Your task to perform on an android device: turn off data saver in the chrome app Image 0: 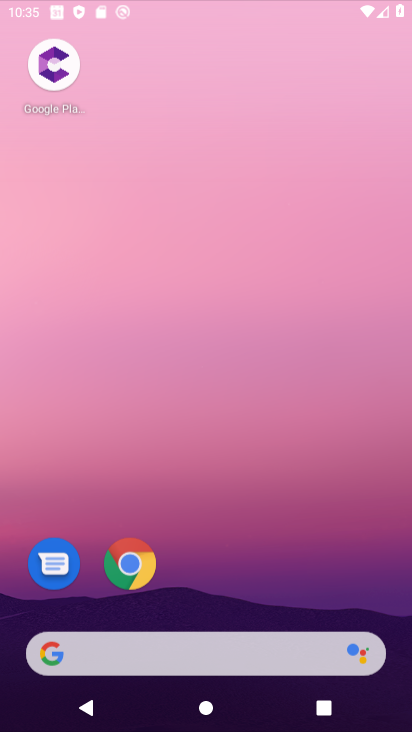
Step 0: click (308, 46)
Your task to perform on an android device: turn off data saver in the chrome app Image 1: 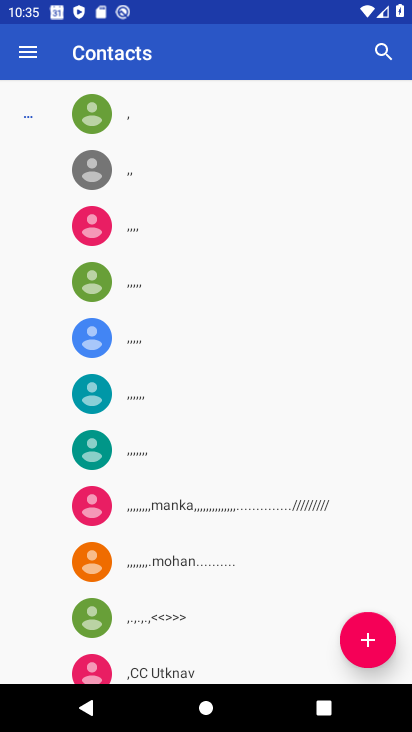
Step 1: press home button
Your task to perform on an android device: turn off data saver in the chrome app Image 2: 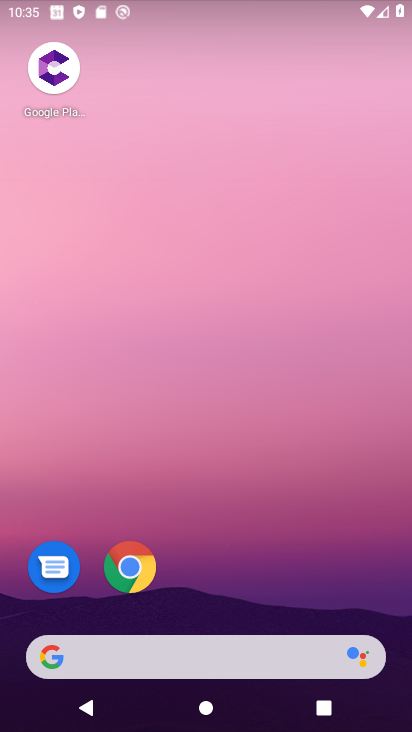
Step 2: drag from (347, 614) to (315, 128)
Your task to perform on an android device: turn off data saver in the chrome app Image 3: 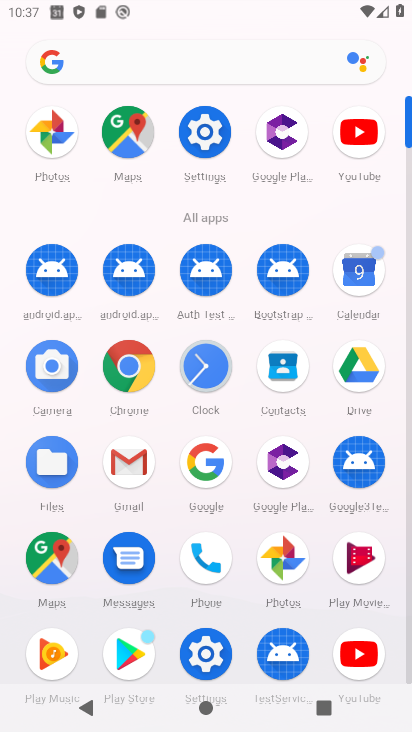
Step 3: click (119, 358)
Your task to perform on an android device: turn off data saver in the chrome app Image 4: 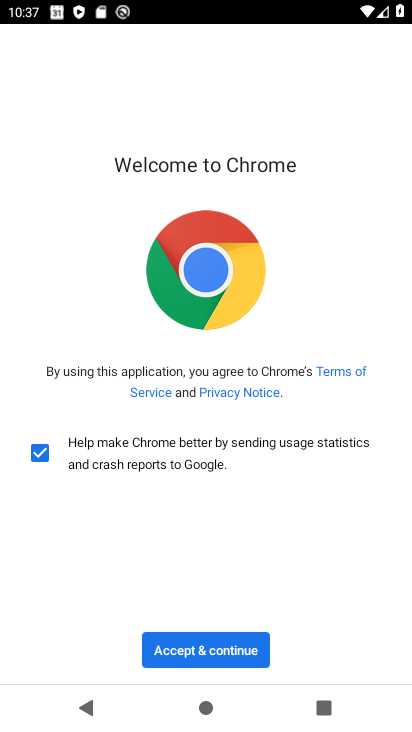
Step 4: click (219, 654)
Your task to perform on an android device: turn off data saver in the chrome app Image 5: 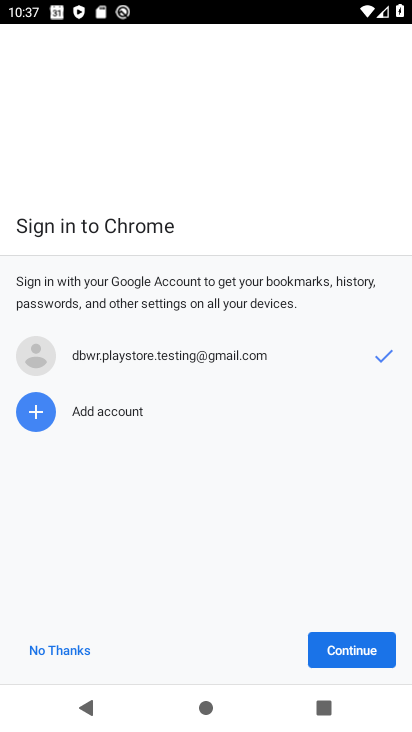
Step 5: click (362, 642)
Your task to perform on an android device: turn off data saver in the chrome app Image 6: 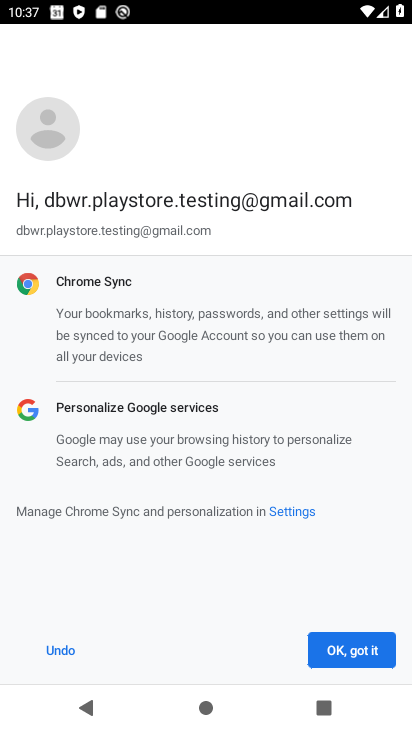
Step 6: click (362, 642)
Your task to perform on an android device: turn off data saver in the chrome app Image 7: 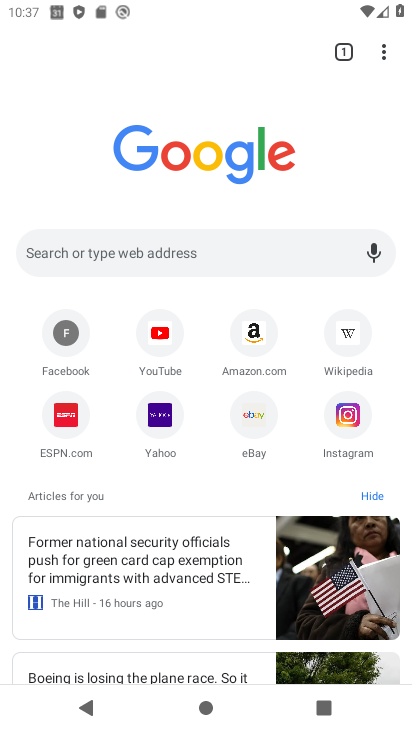
Step 7: click (384, 51)
Your task to perform on an android device: turn off data saver in the chrome app Image 8: 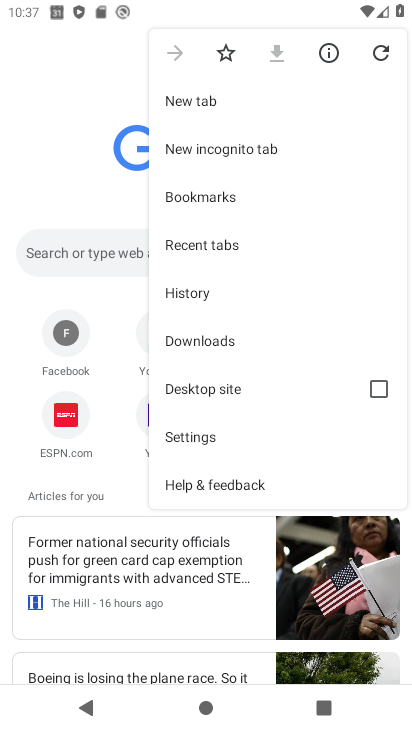
Step 8: click (197, 442)
Your task to perform on an android device: turn off data saver in the chrome app Image 9: 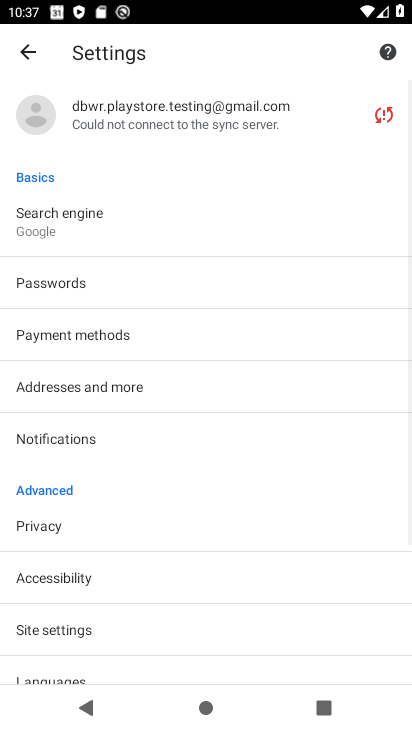
Step 9: drag from (126, 657) to (152, 363)
Your task to perform on an android device: turn off data saver in the chrome app Image 10: 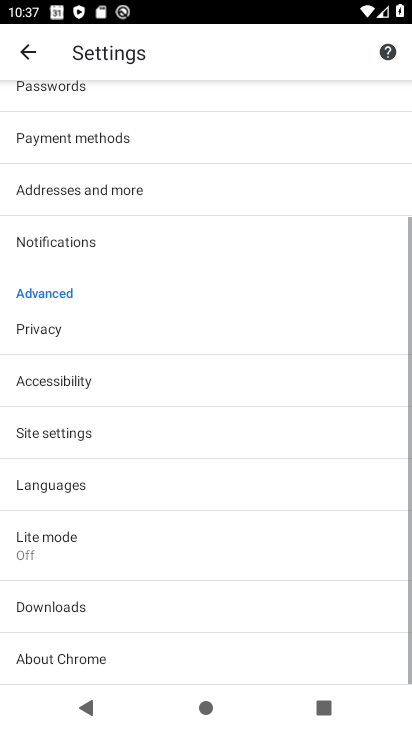
Step 10: click (89, 536)
Your task to perform on an android device: turn off data saver in the chrome app Image 11: 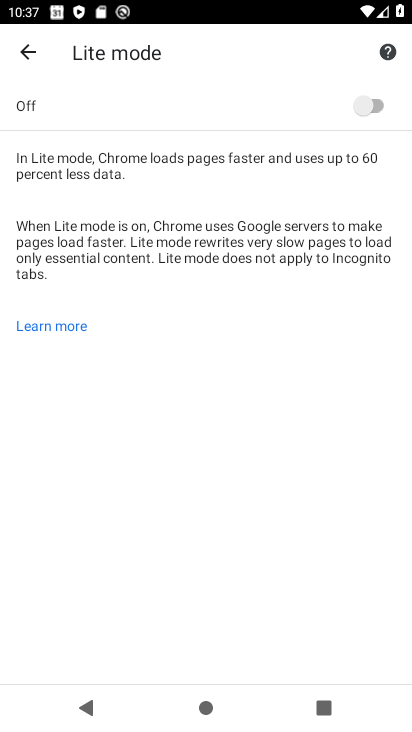
Step 11: task complete